Your task to perform on an android device: Show me recent news Image 0: 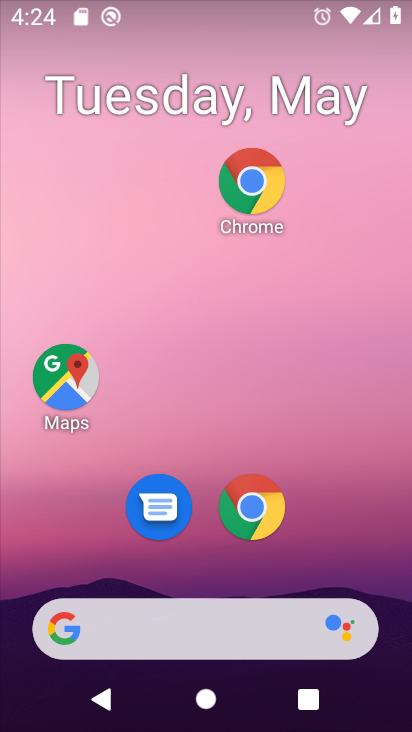
Step 0: drag from (358, 445) to (305, 90)
Your task to perform on an android device: Show me recent news Image 1: 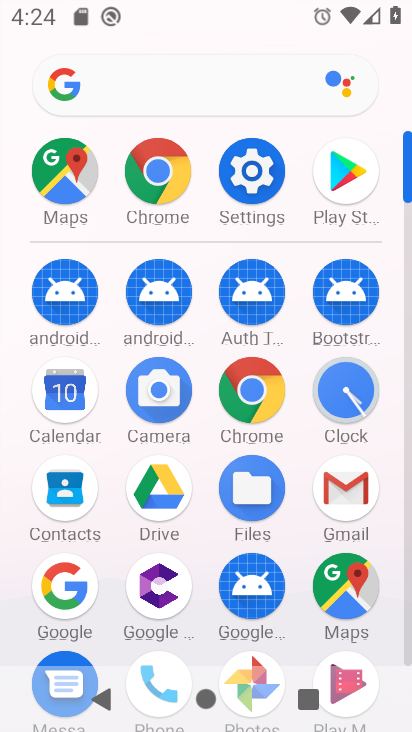
Step 1: click (258, 406)
Your task to perform on an android device: Show me recent news Image 2: 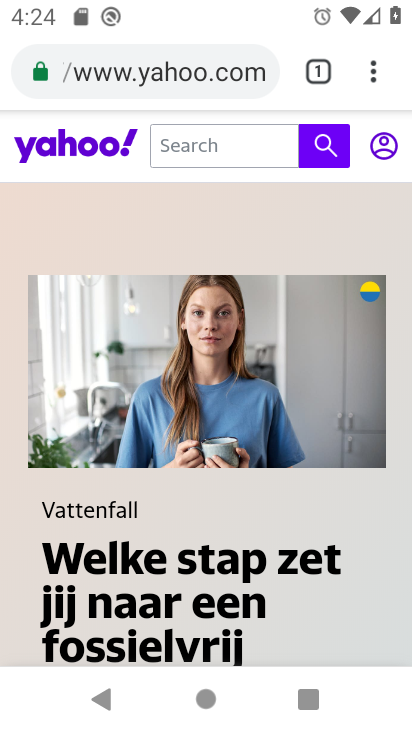
Step 2: task complete